Your task to perform on an android device: Open Chrome and go to the settings page Image 0: 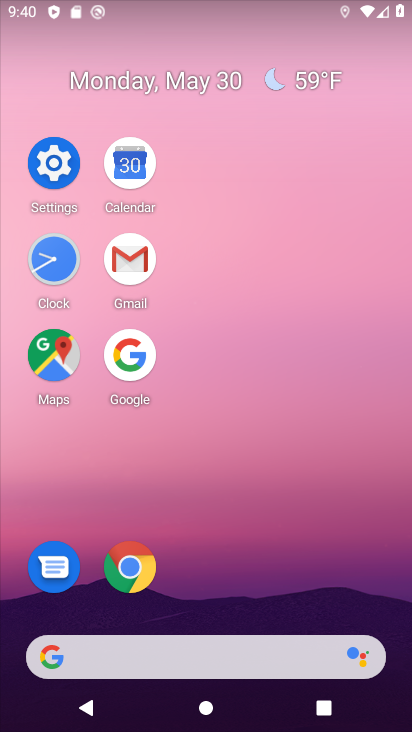
Step 0: click (116, 576)
Your task to perform on an android device: Open Chrome and go to the settings page Image 1: 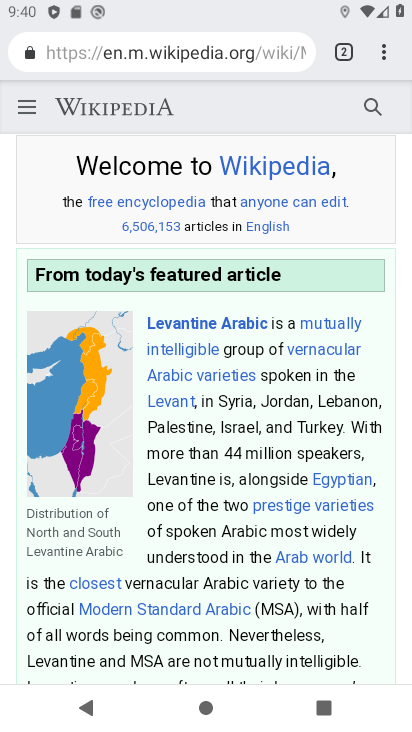
Step 1: click (384, 62)
Your task to perform on an android device: Open Chrome and go to the settings page Image 2: 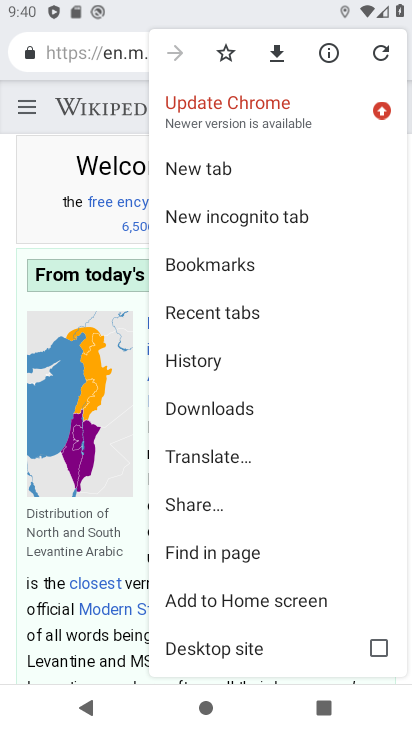
Step 2: drag from (222, 516) to (266, 125)
Your task to perform on an android device: Open Chrome and go to the settings page Image 3: 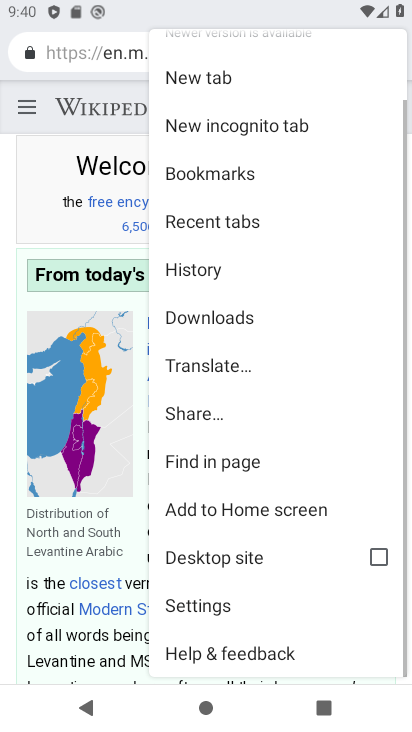
Step 3: click (241, 602)
Your task to perform on an android device: Open Chrome and go to the settings page Image 4: 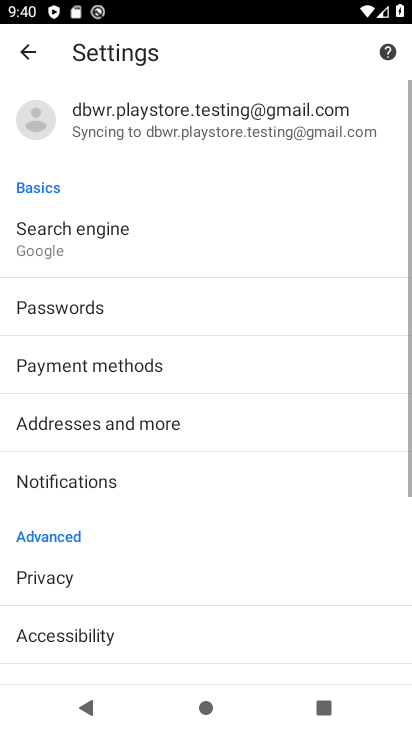
Step 4: task complete